Your task to perform on an android device: What's on my calendar today? Image 0: 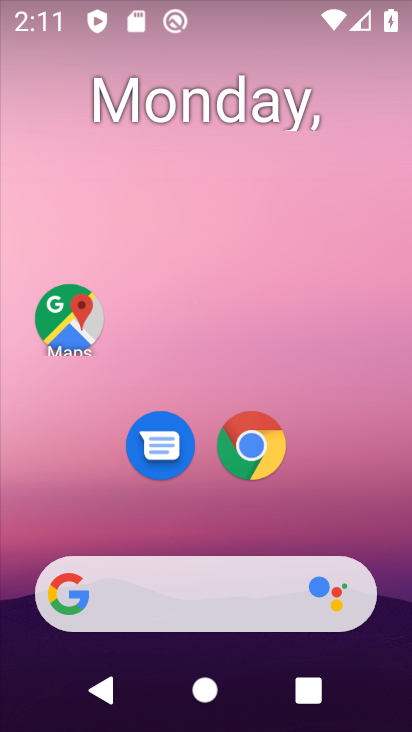
Step 0: click (167, 94)
Your task to perform on an android device: What's on my calendar today? Image 1: 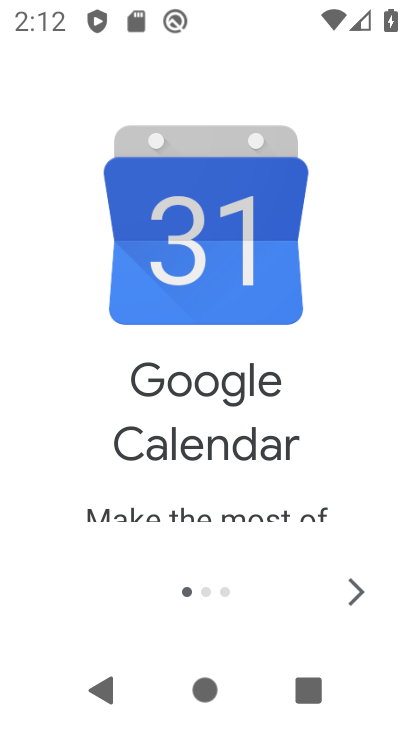
Step 1: click (345, 593)
Your task to perform on an android device: What's on my calendar today? Image 2: 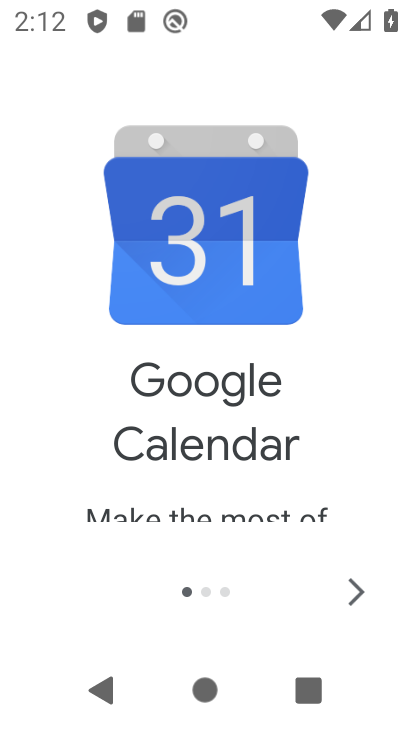
Step 2: click (345, 593)
Your task to perform on an android device: What's on my calendar today? Image 3: 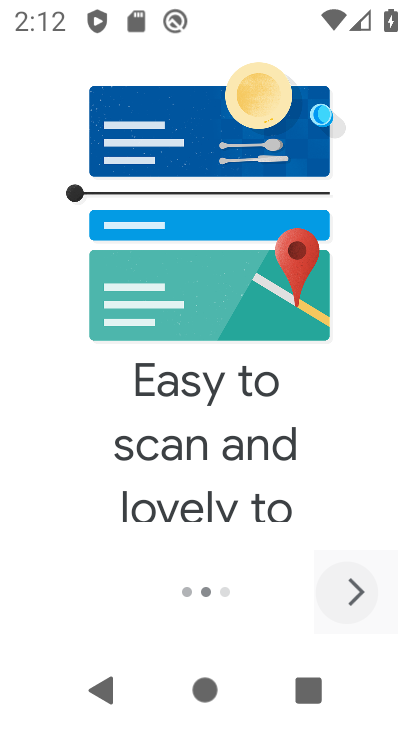
Step 3: click (345, 593)
Your task to perform on an android device: What's on my calendar today? Image 4: 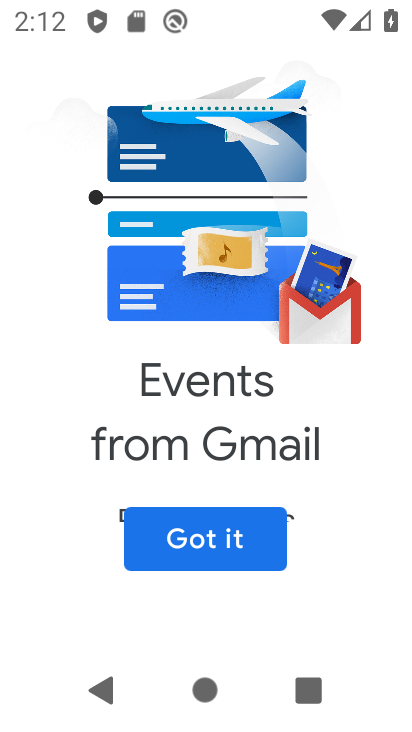
Step 4: click (201, 533)
Your task to perform on an android device: What's on my calendar today? Image 5: 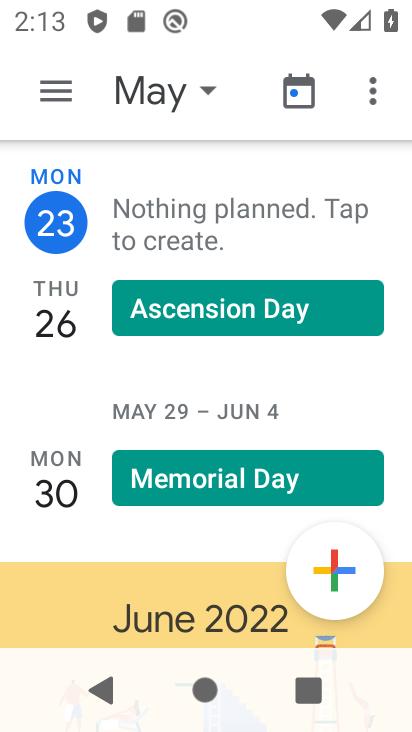
Step 5: task complete